Your task to perform on an android device: When is my next meeting? Image 0: 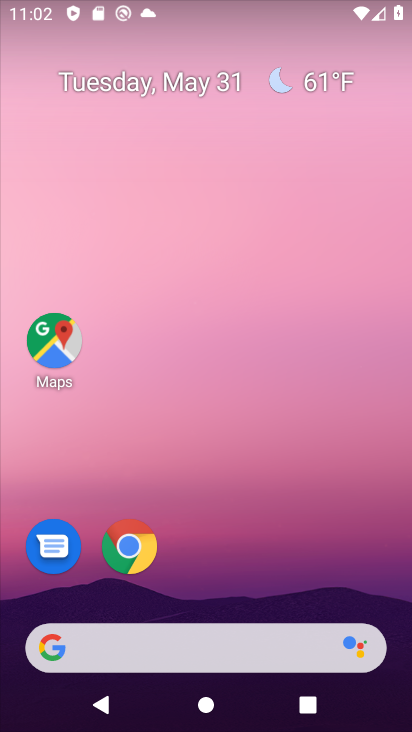
Step 0: drag from (209, 629) to (355, 8)
Your task to perform on an android device: When is my next meeting? Image 1: 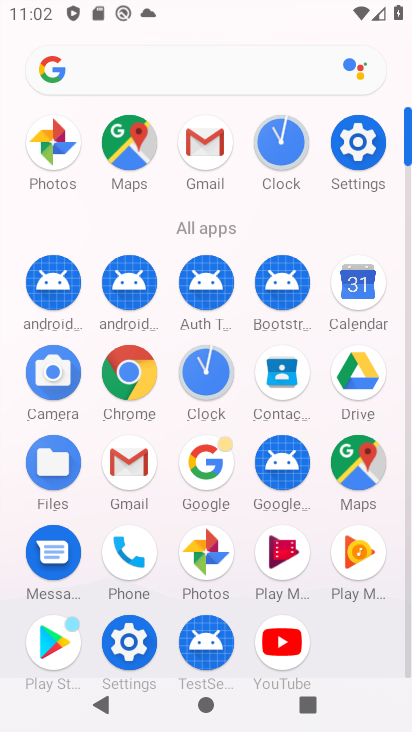
Step 1: click (352, 289)
Your task to perform on an android device: When is my next meeting? Image 2: 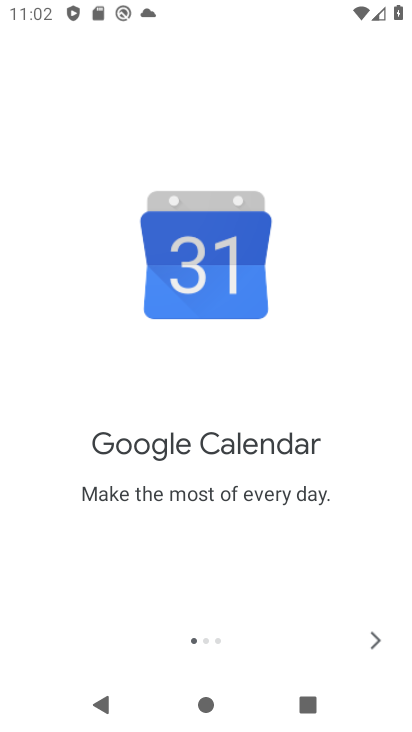
Step 2: click (381, 636)
Your task to perform on an android device: When is my next meeting? Image 3: 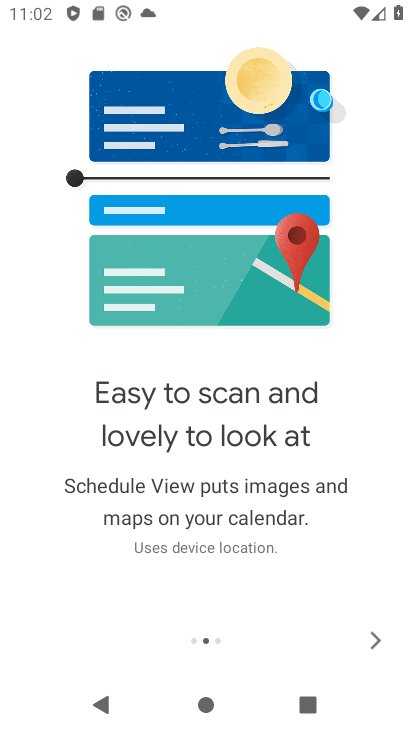
Step 3: click (381, 636)
Your task to perform on an android device: When is my next meeting? Image 4: 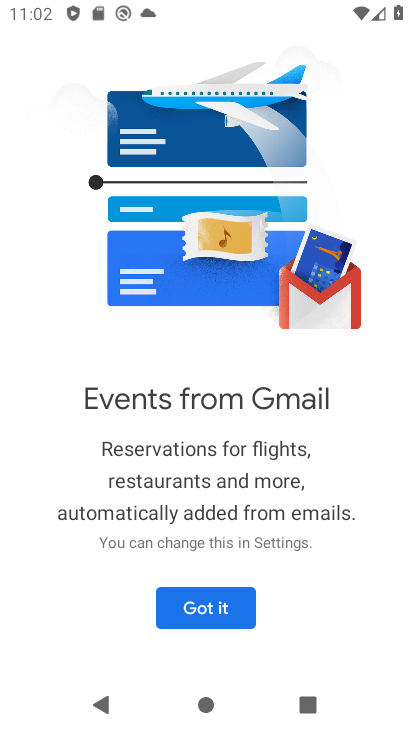
Step 4: click (217, 606)
Your task to perform on an android device: When is my next meeting? Image 5: 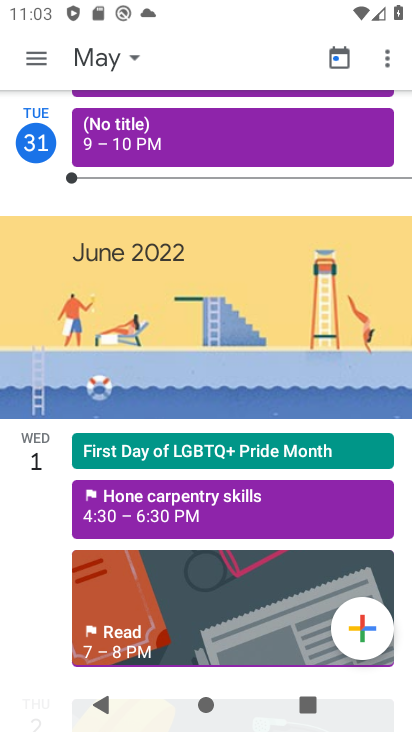
Step 5: click (23, 69)
Your task to perform on an android device: When is my next meeting? Image 6: 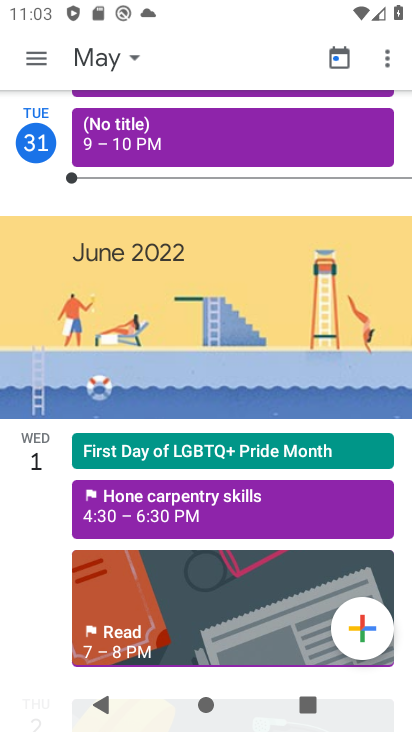
Step 6: click (33, 60)
Your task to perform on an android device: When is my next meeting? Image 7: 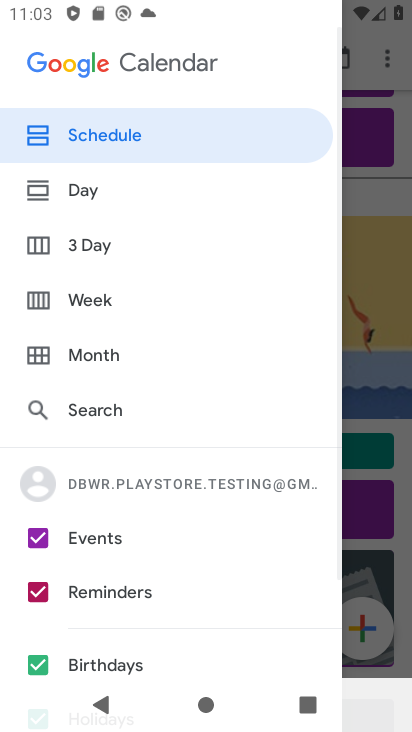
Step 7: click (71, 284)
Your task to perform on an android device: When is my next meeting? Image 8: 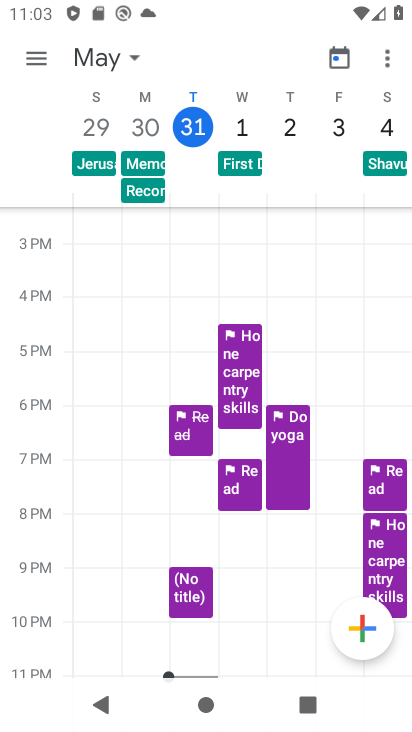
Step 8: task complete